Your task to perform on an android device: find which apps use the phone's location Image 0: 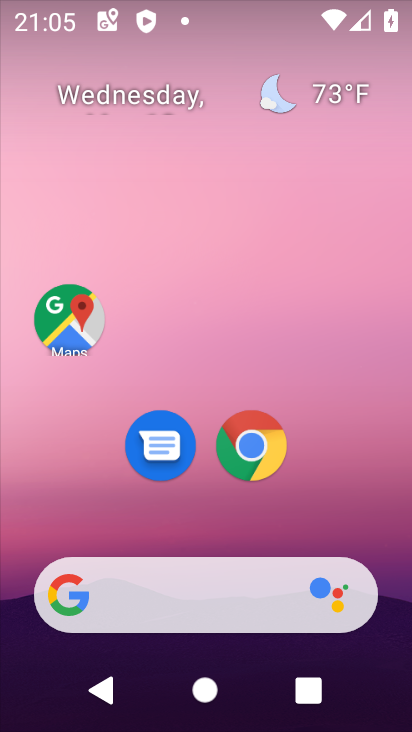
Step 0: drag from (332, 529) to (372, 156)
Your task to perform on an android device: find which apps use the phone's location Image 1: 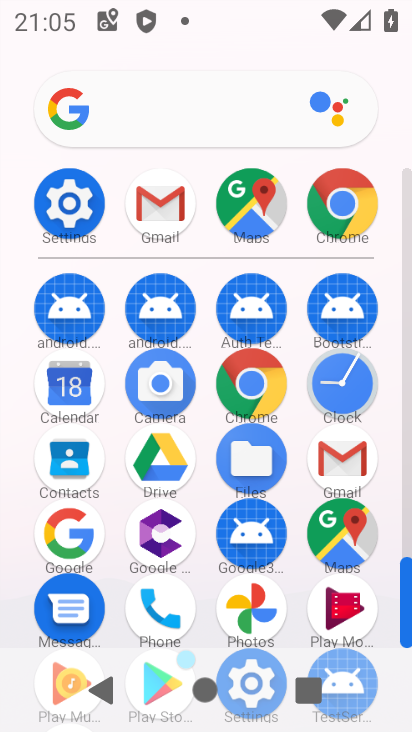
Step 1: click (76, 200)
Your task to perform on an android device: find which apps use the phone's location Image 2: 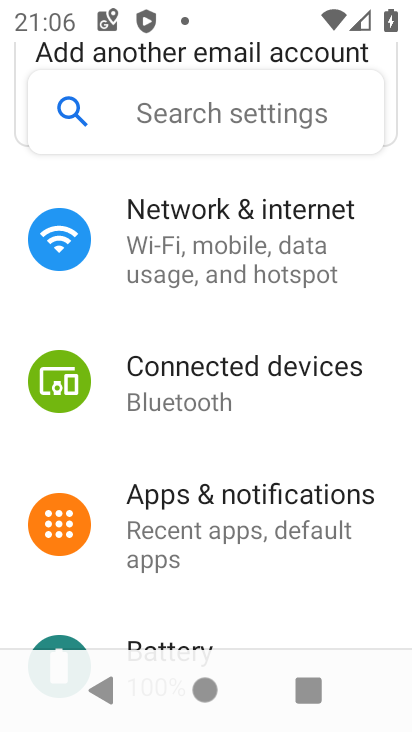
Step 2: drag from (199, 558) to (341, 126)
Your task to perform on an android device: find which apps use the phone's location Image 3: 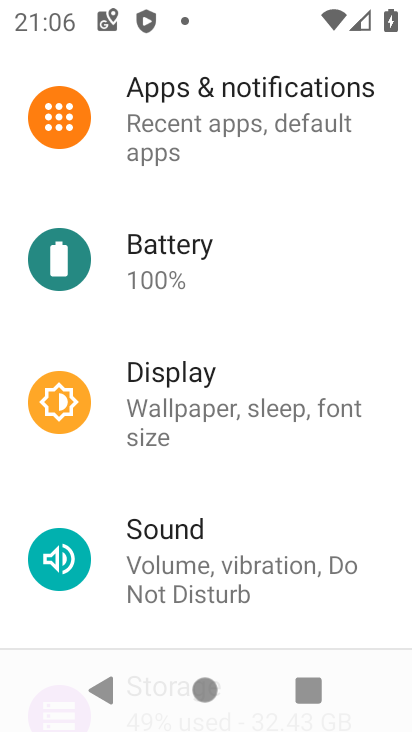
Step 3: drag from (182, 549) to (306, 150)
Your task to perform on an android device: find which apps use the phone's location Image 4: 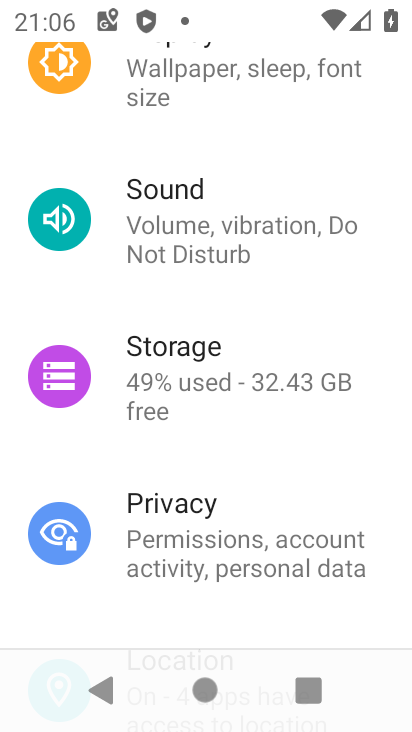
Step 4: drag from (251, 554) to (297, 220)
Your task to perform on an android device: find which apps use the phone's location Image 5: 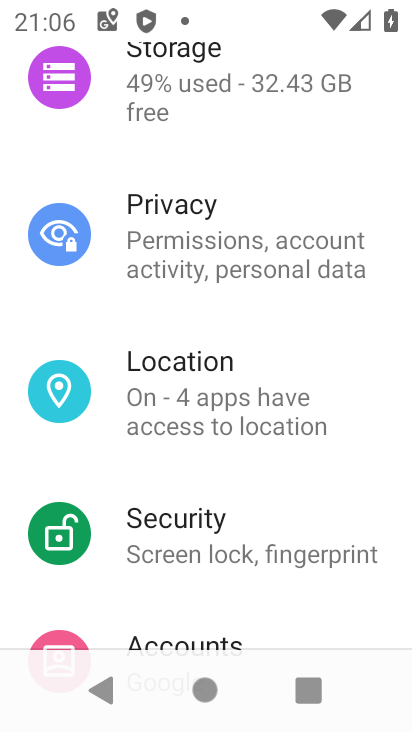
Step 5: click (202, 401)
Your task to perform on an android device: find which apps use the phone's location Image 6: 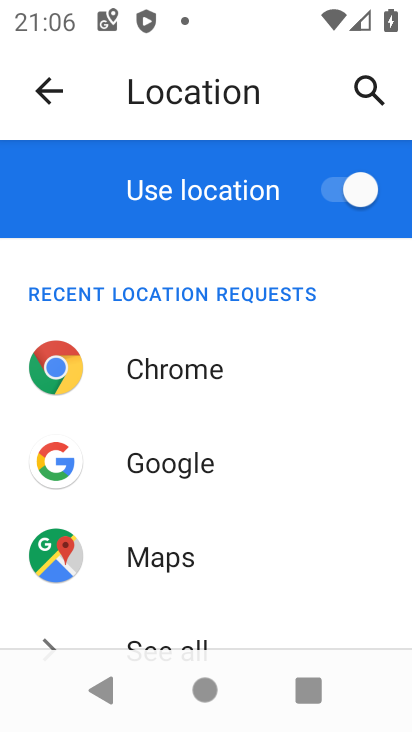
Step 6: task complete